Your task to perform on an android device: Go to Google maps Image 0: 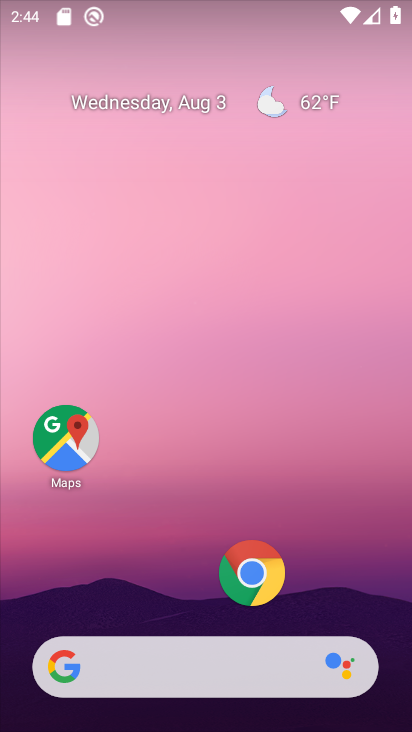
Step 0: click (67, 429)
Your task to perform on an android device: Go to Google maps Image 1: 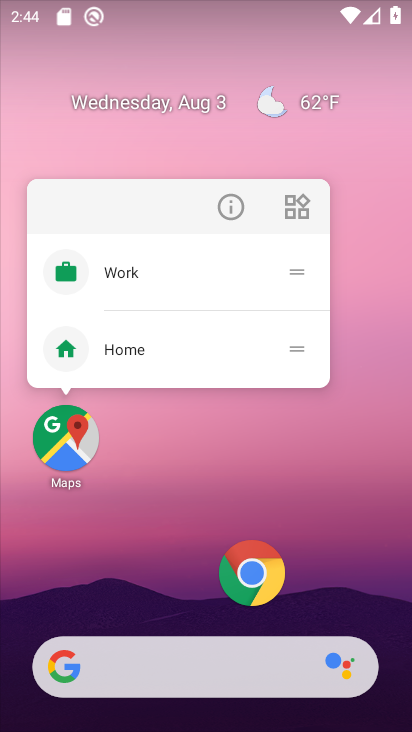
Step 1: click (79, 440)
Your task to perform on an android device: Go to Google maps Image 2: 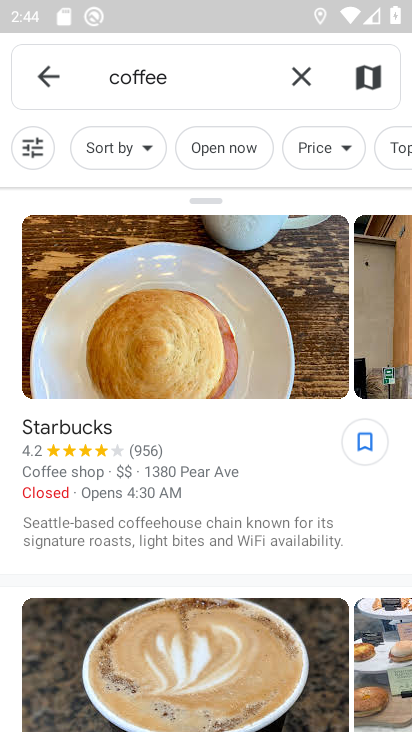
Step 2: click (54, 84)
Your task to perform on an android device: Go to Google maps Image 3: 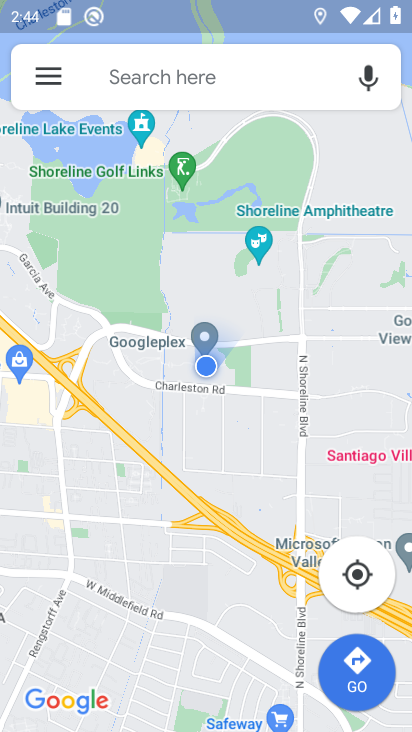
Step 3: task complete